Your task to perform on an android device: Open location settings Image 0: 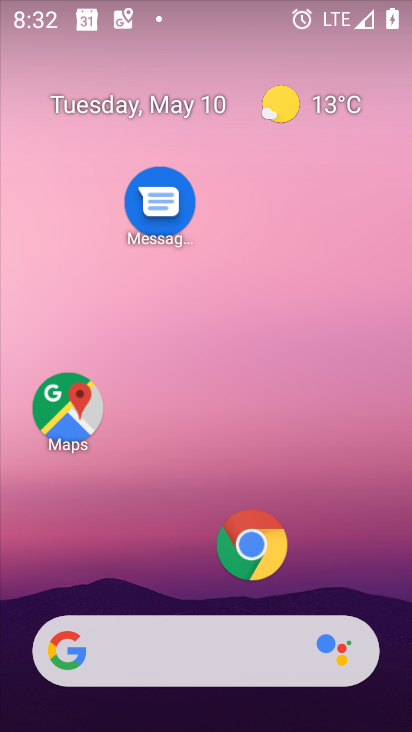
Step 0: press home button
Your task to perform on an android device: Open location settings Image 1: 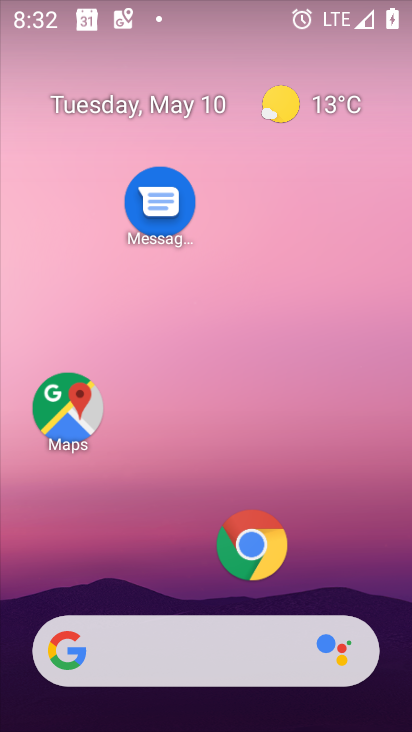
Step 1: drag from (200, 585) to (215, 79)
Your task to perform on an android device: Open location settings Image 2: 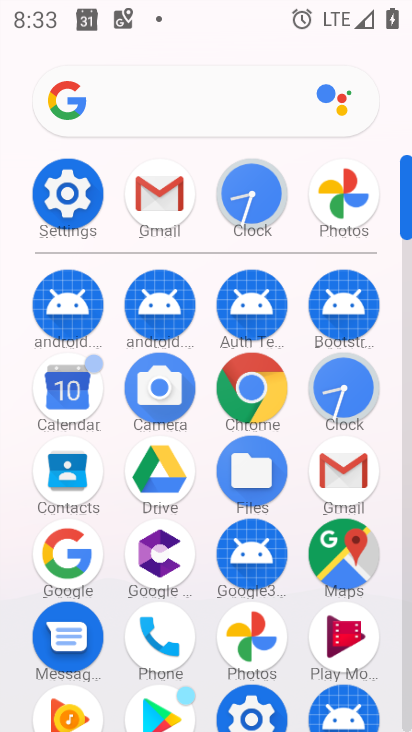
Step 2: click (65, 192)
Your task to perform on an android device: Open location settings Image 3: 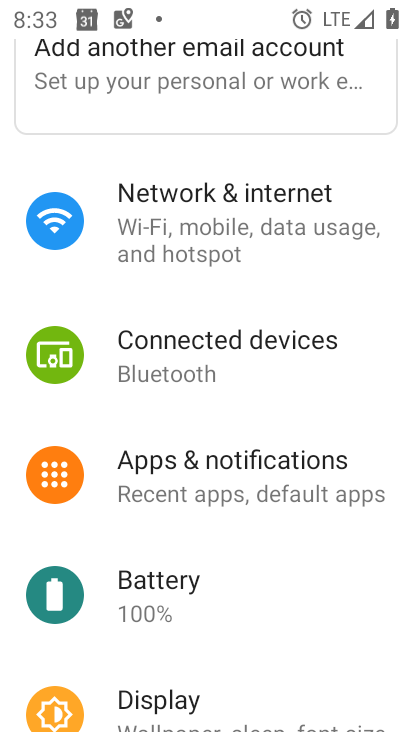
Step 3: drag from (195, 671) to (230, 123)
Your task to perform on an android device: Open location settings Image 4: 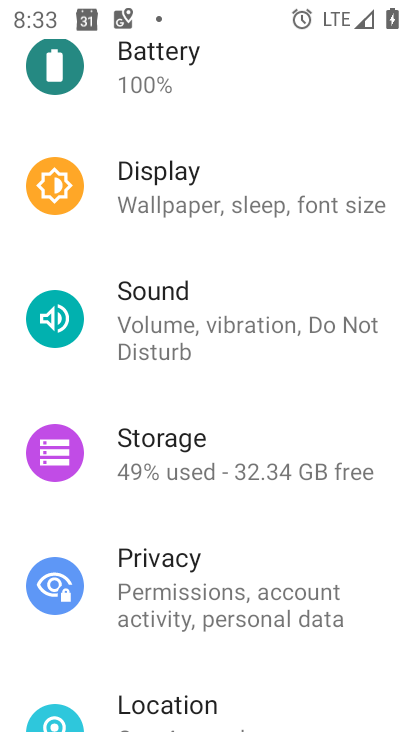
Step 4: click (228, 699)
Your task to perform on an android device: Open location settings Image 5: 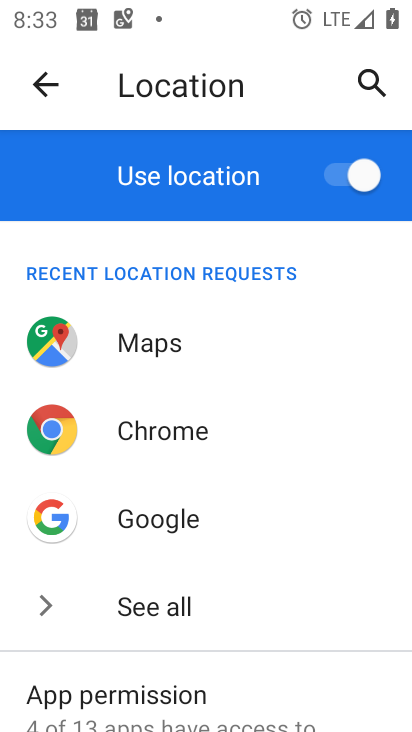
Step 5: drag from (219, 663) to (247, 227)
Your task to perform on an android device: Open location settings Image 6: 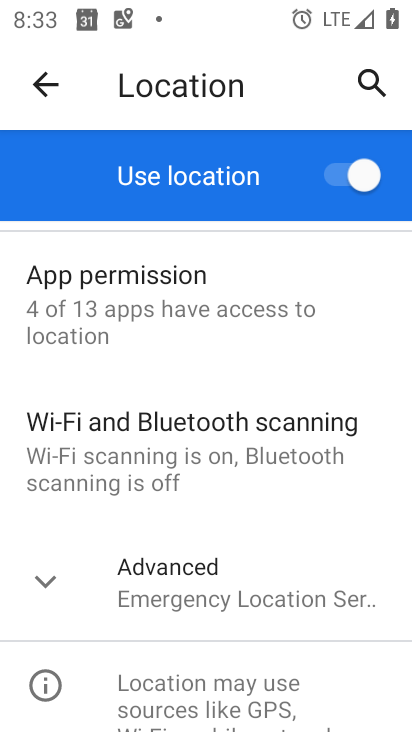
Step 6: click (46, 576)
Your task to perform on an android device: Open location settings Image 7: 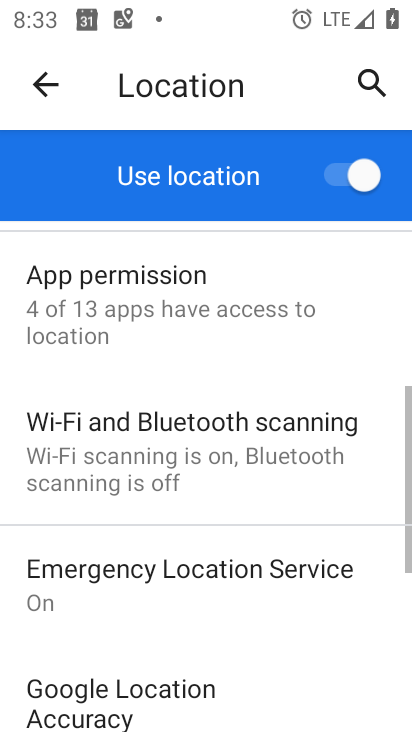
Step 7: task complete